Your task to perform on an android device: Go to sound settings Image 0: 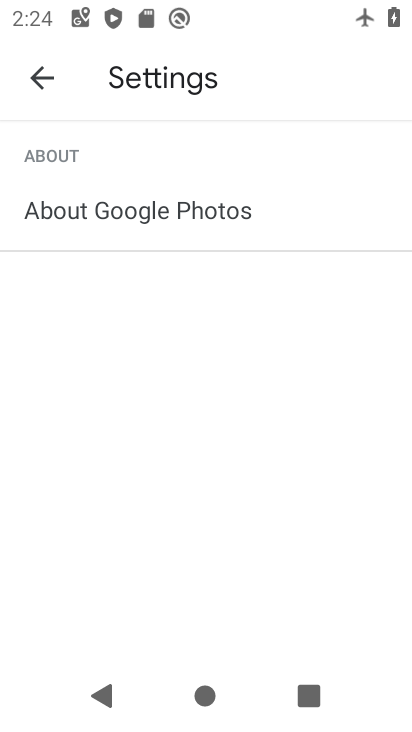
Step 0: press home button
Your task to perform on an android device: Go to sound settings Image 1: 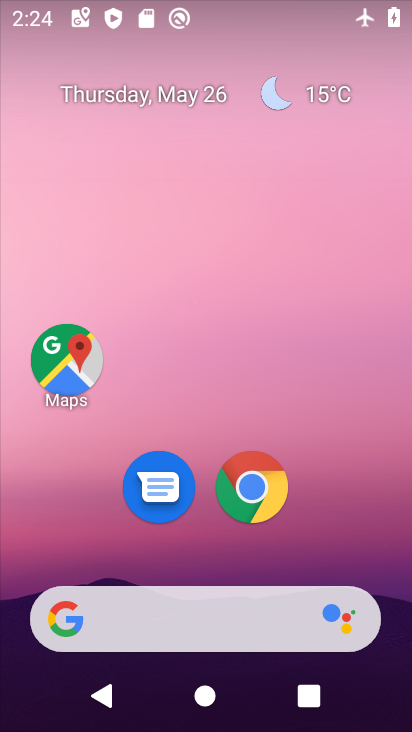
Step 1: drag from (194, 561) to (198, 250)
Your task to perform on an android device: Go to sound settings Image 2: 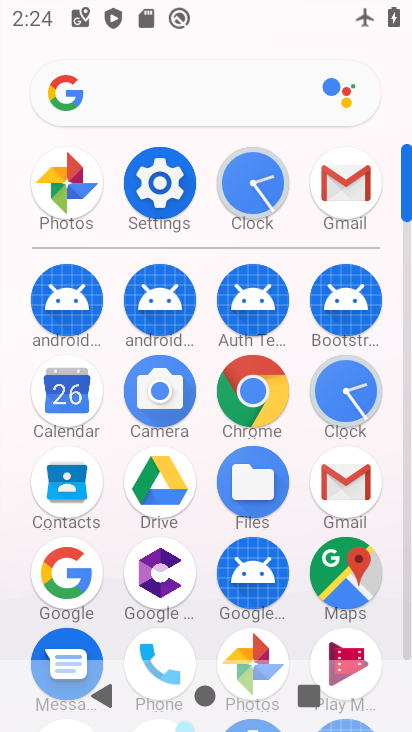
Step 2: click (143, 190)
Your task to perform on an android device: Go to sound settings Image 3: 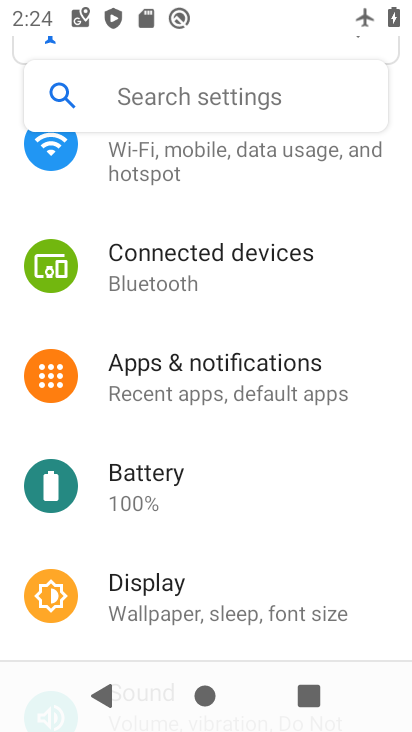
Step 3: drag from (235, 557) to (240, 345)
Your task to perform on an android device: Go to sound settings Image 4: 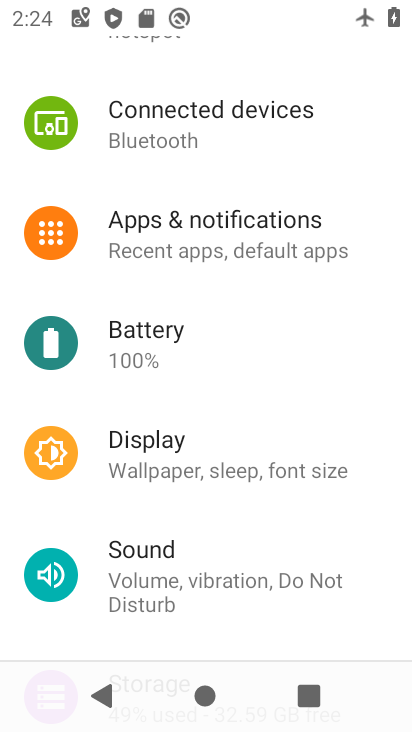
Step 4: click (217, 551)
Your task to perform on an android device: Go to sound settings Image 5: 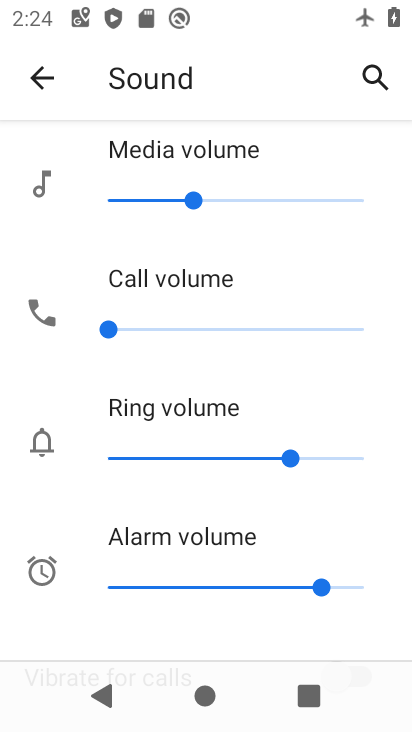
Step 5: task complete